Your task to perform on an android device: see sites visited before in the chrome app Image 0: 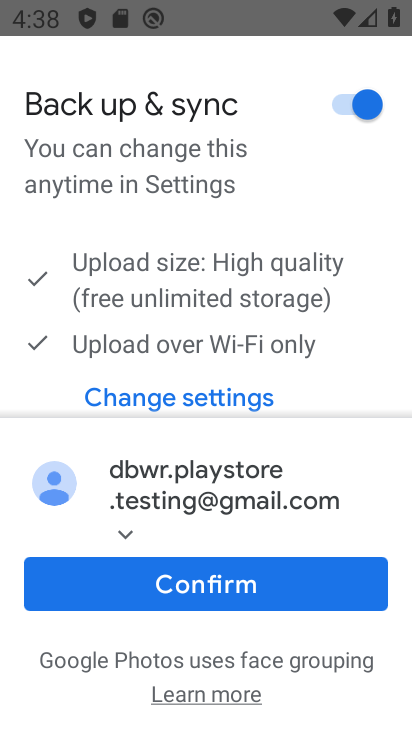
Step 0: press back button
Your task to perform on an android device: see sites visited before in the chrome app Image 1: 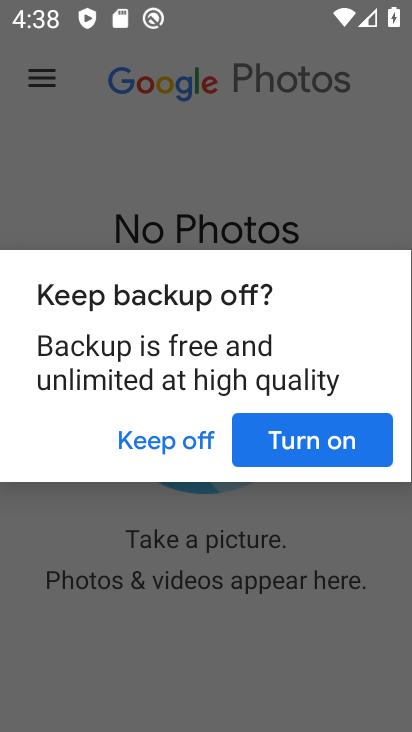
Step 1: press back button
Your task to perform on an android device: see sites visited before in the chrome app Image 2: 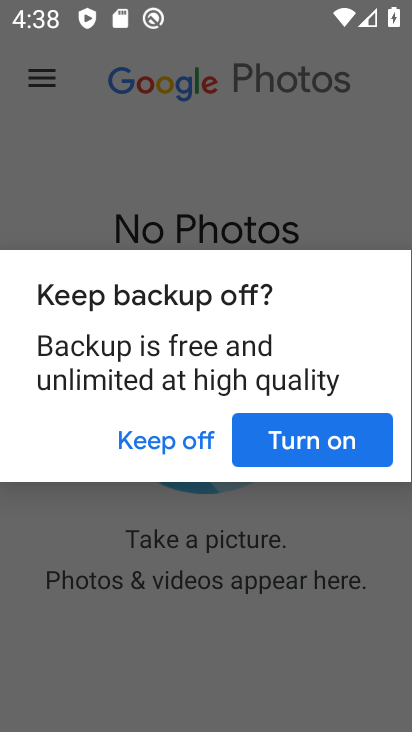
Step 2: press home button
Your task to perform on an android device: see sites visited before in the chrome app Image 3: 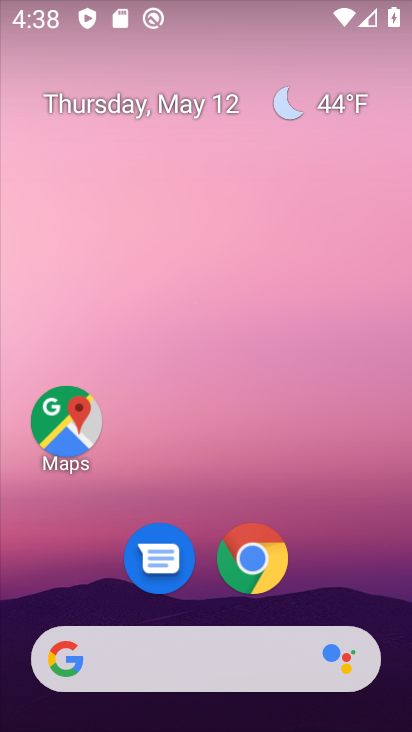
Step 3: drag from (300, 559) to (277, 2)
Your task to perform on an android device: see sites visited before in the chrome app Image 4: 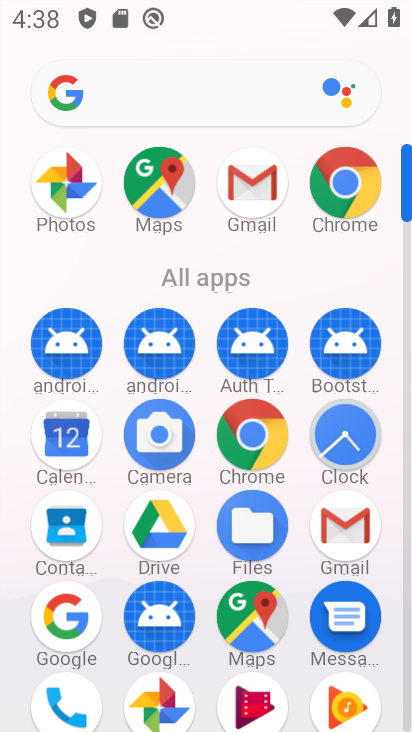
Step 4: drag from (16, 592) to (21, 273)
Your task to perform on an android device: see sites visited before in the chrome app Image 5: 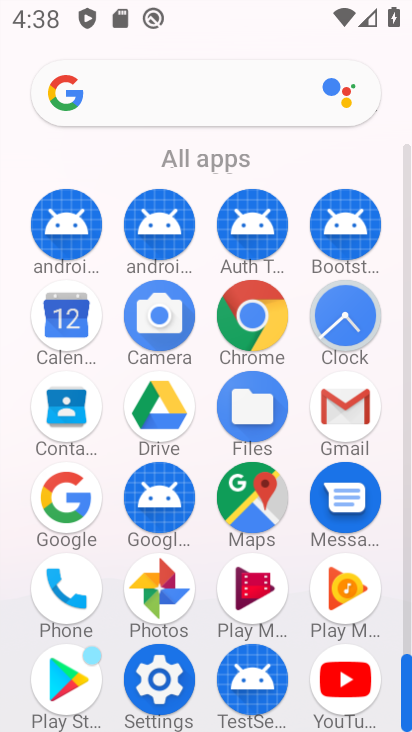
Step 5: click (253, 309)
Your task to perform on an android device: see sites visited before in the chrome app Image 6: 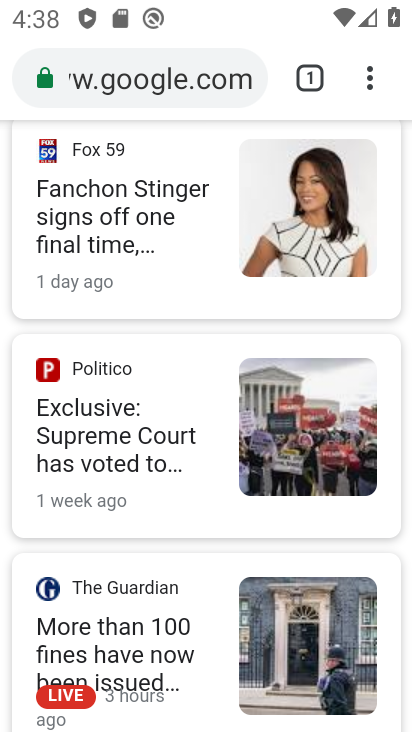
Step 6: task complete